Your task to perform on an android device: Check the news Image 0: 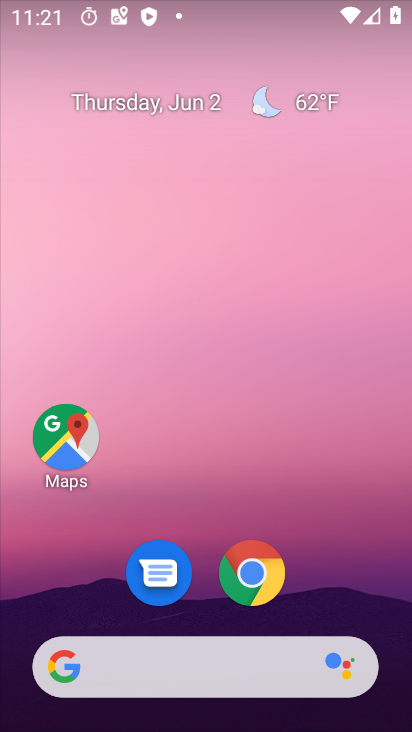
Step 0: drag from (218, 424) to (256, 78)
Your task to perform on an android device: Check the news Image 1: 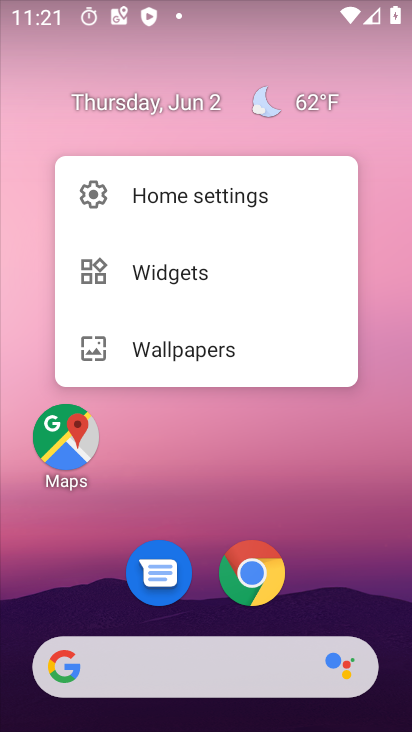
Step 1: drag from (230, 684) to (358, 116)
Your task to perform on an android device: Check the news Image 2: 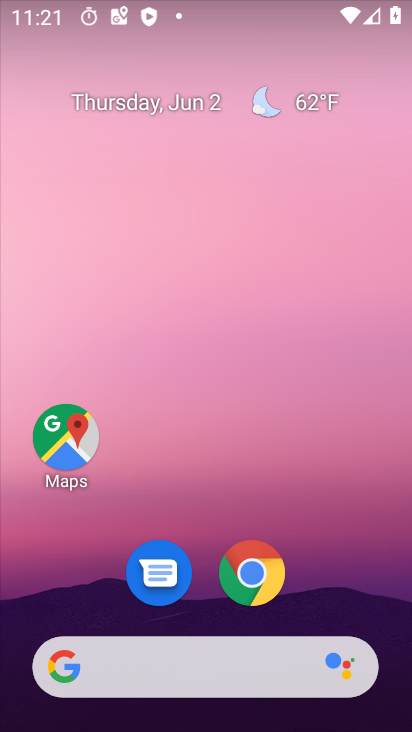
Step 2: drag from (336, 654) to (314, 102)
Your task to perform on an android device: Check the news Image 3: 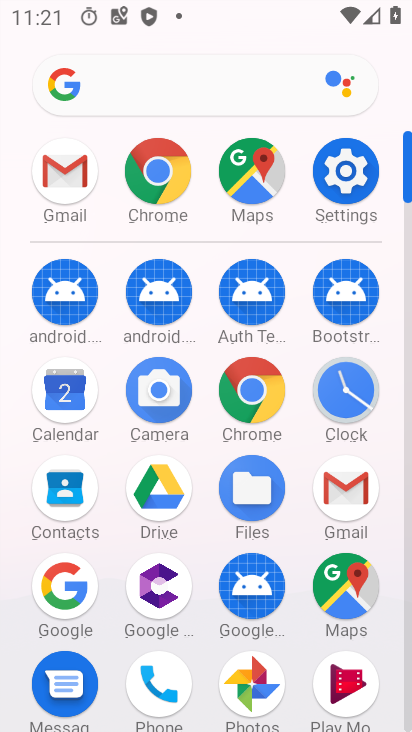
Step 3: click (251, 383)
Your task to perform on an android device: Check the news Image 4: 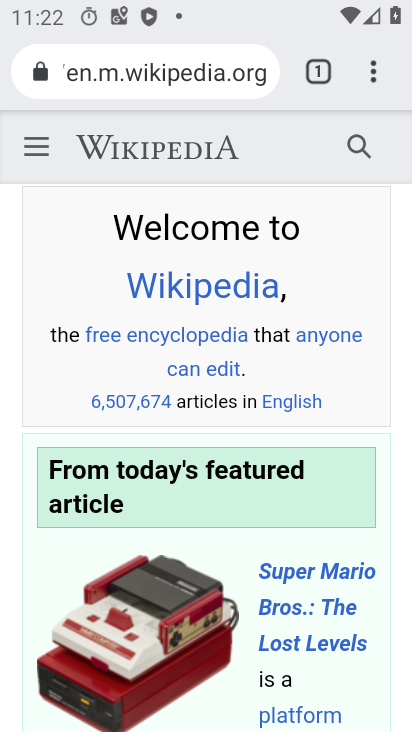
Step 4: click (179, 74)
Your task to perform on an android device: Check the news Image 5: 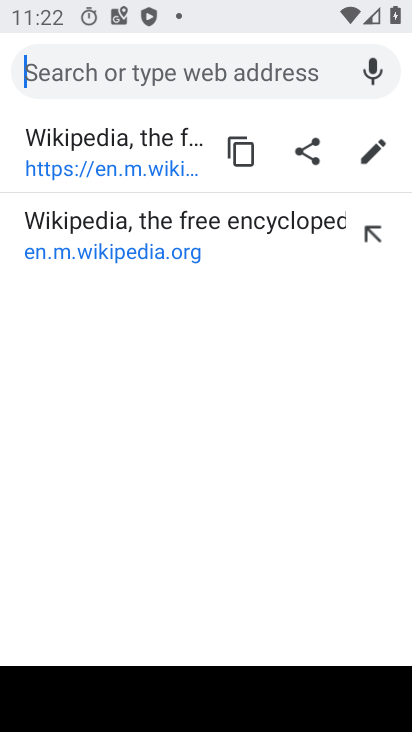
Step 5: type "check the news"
Your task to perform on an android device: Check the news Image 6: 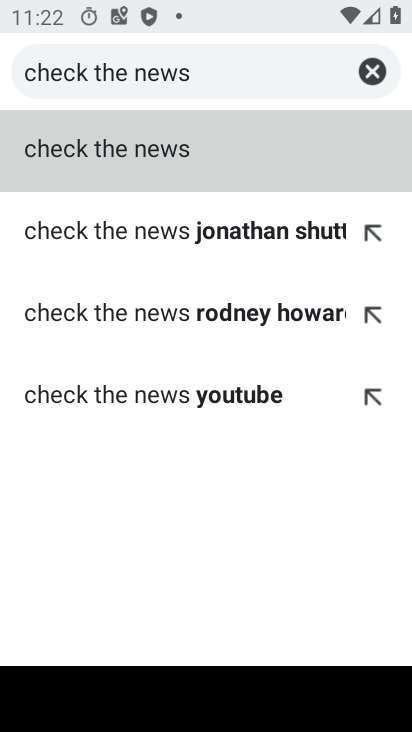
Step 6: click (175, 172)
Your task to perform on an android device: Check the news Image 7: 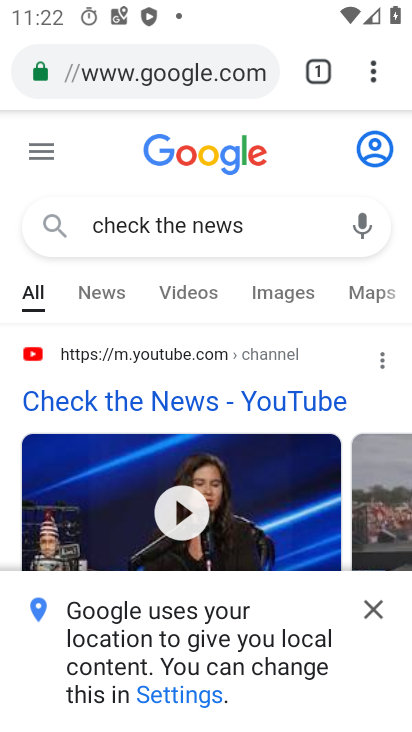
Step 7: task complete